Your task to perform on an android device: open app "Walmart Shopping & Grocery" (install if not already installed) and enter user name: "Hans@icloud.com" and password: "executing" Image 0: 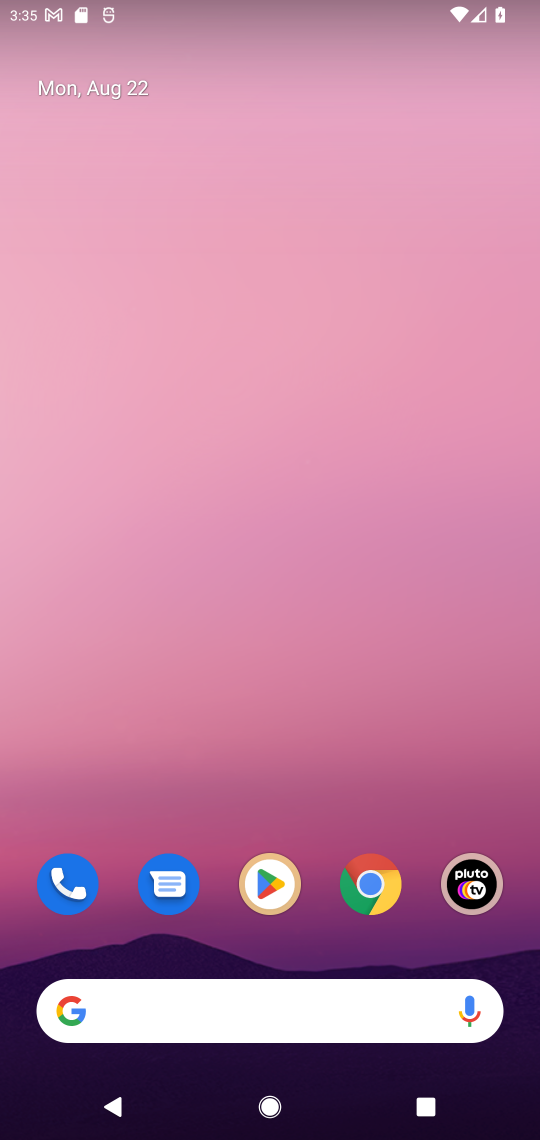
Step 0: click (265, 891)
Your task to perform on an android device: open app "Walmart Shopping & Grocery" (install if not already installed) and enter user name: "Hans@icloud.com" and password: "executing" Image 1: 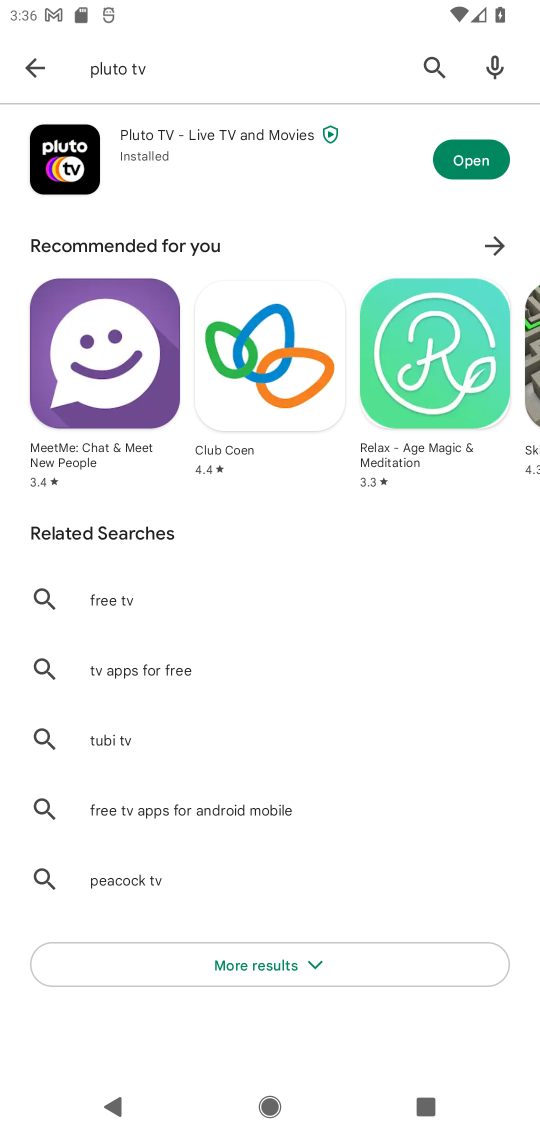
Step 1: click (205, 77)
Your task to perform on an android device: open app "Walmart Shopping & Grocery" (install if not already installed) and enter user name: "Hans@icloud.com" and password: "executing" Image 2: 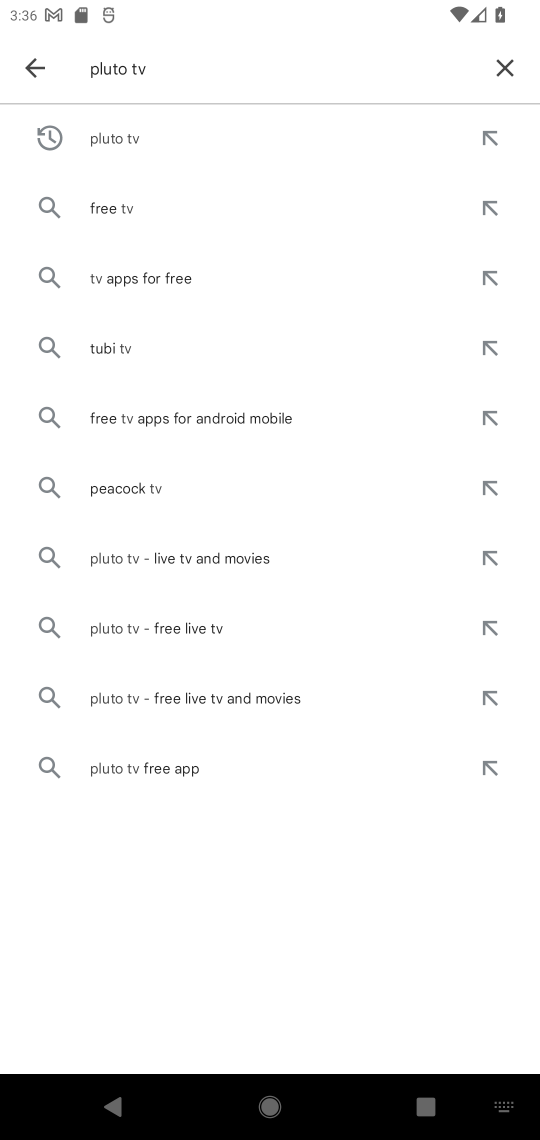
Step 2: click (499, 71)
Your task to perform on an android device: open app "Walmart Shopping & Grocery" (install if not already installed) and enter user name: "Hans@icloud.com" and password: "executing" Image 3: 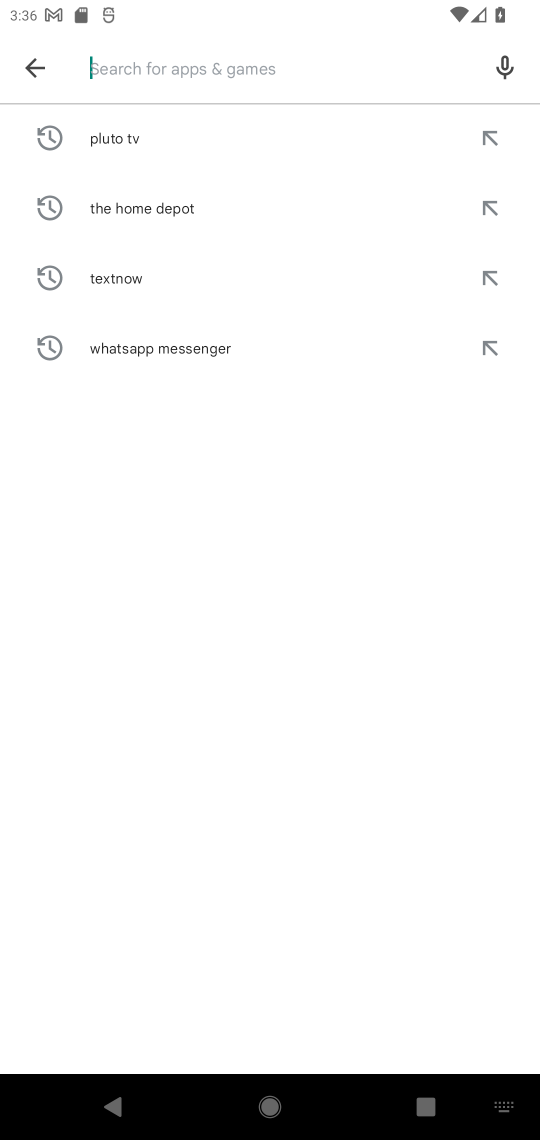
Step 3: type "Walmart"
Your task to perform on an android device: open app "Walmart Shopping & Grocery" (install if not already installed) and enter user name: "Hans@icloud.com" and password: "executing" Image 4: 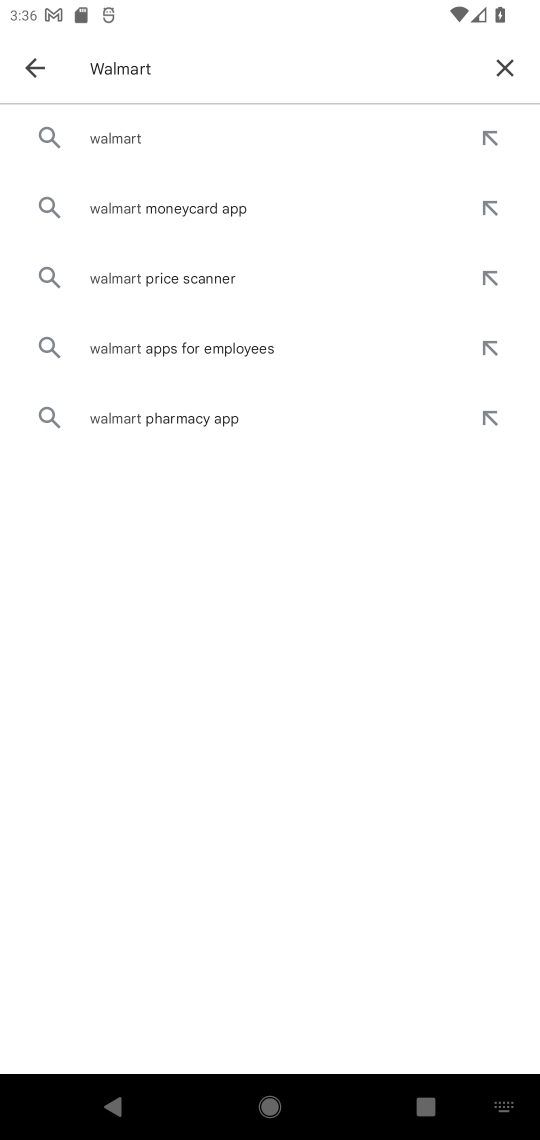
Step 4: click (144, 136)
Your task to perform on an android device: open app "Walmart Shopping & Grocery" (install if not already installed) and enter user name: "Hans@icloud.com" and password: "executing" Image 5: 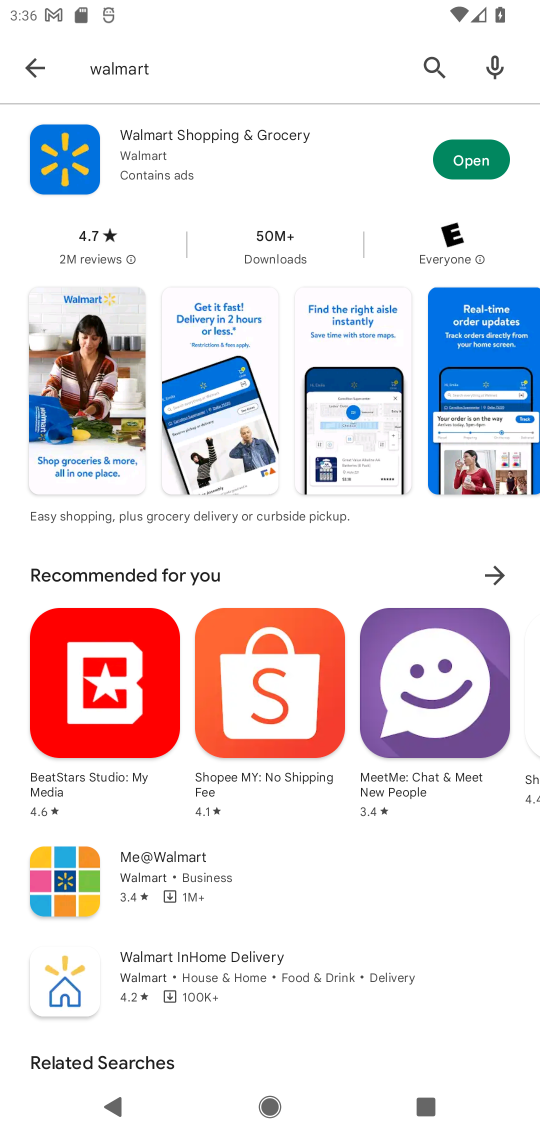
Step 5: click (490, 161)
Your task to perform on an android device: open app "Walmart Shopping & Grocery" (install if not already installed) and enter user name: "Hans@icloud.com" and password: "executing" Image 6: 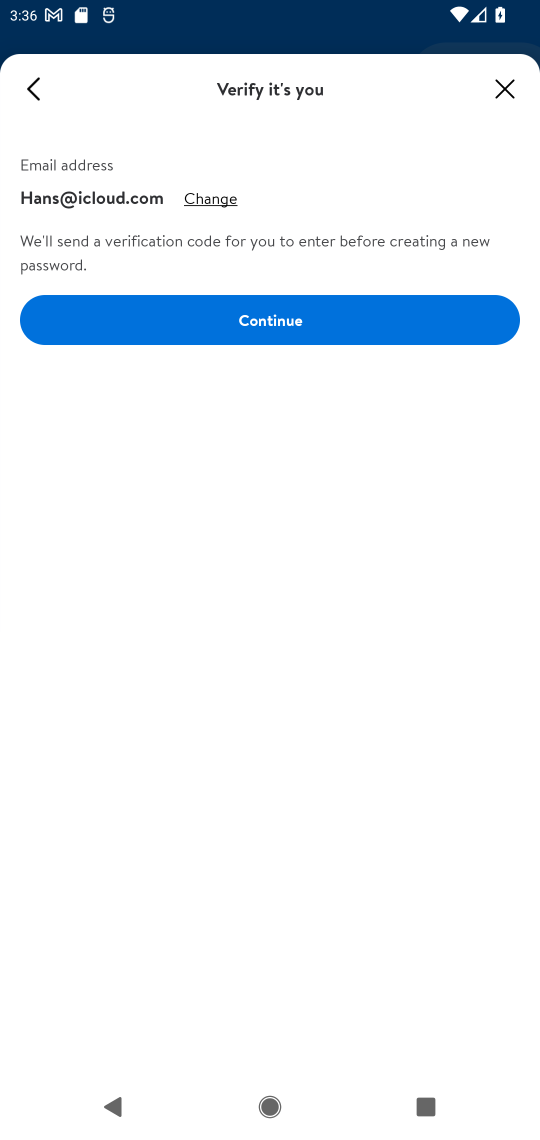
Step 6: click (328, 328)
Your task to perform on an android device: open app "Walmart Shopping & Grocery" (install if not already installed) and enter user name: "Hans@icloud.com" and password: "executing" Image 7: 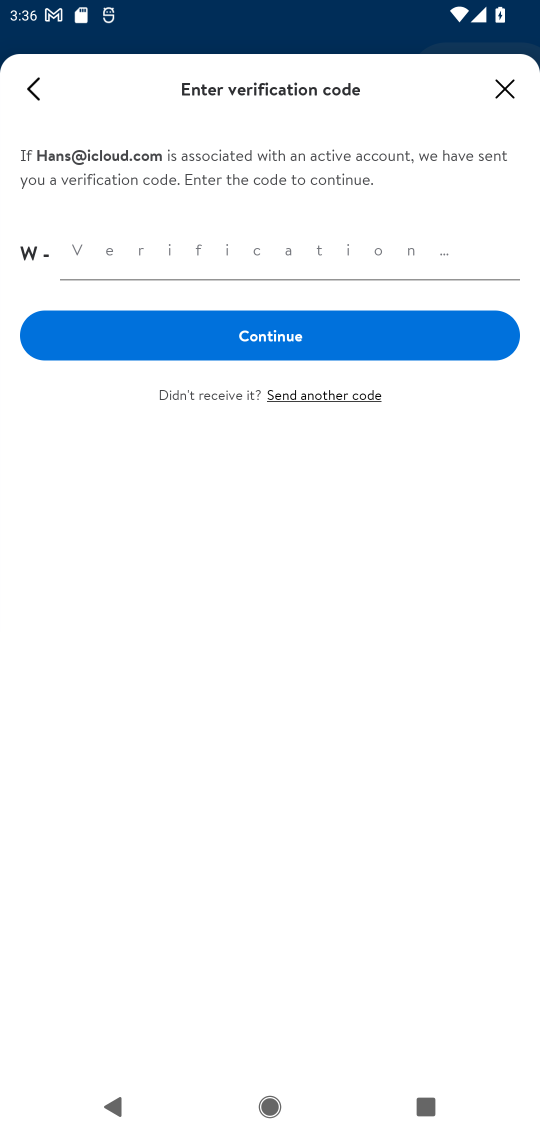
Step 7: click (204, 249)
Your task to perform on an android device: open app "Walmart Shopping & Grocery" (install if not already installed) and enter user name: "Hans@icloud.com" and password: "executing" Image 8: 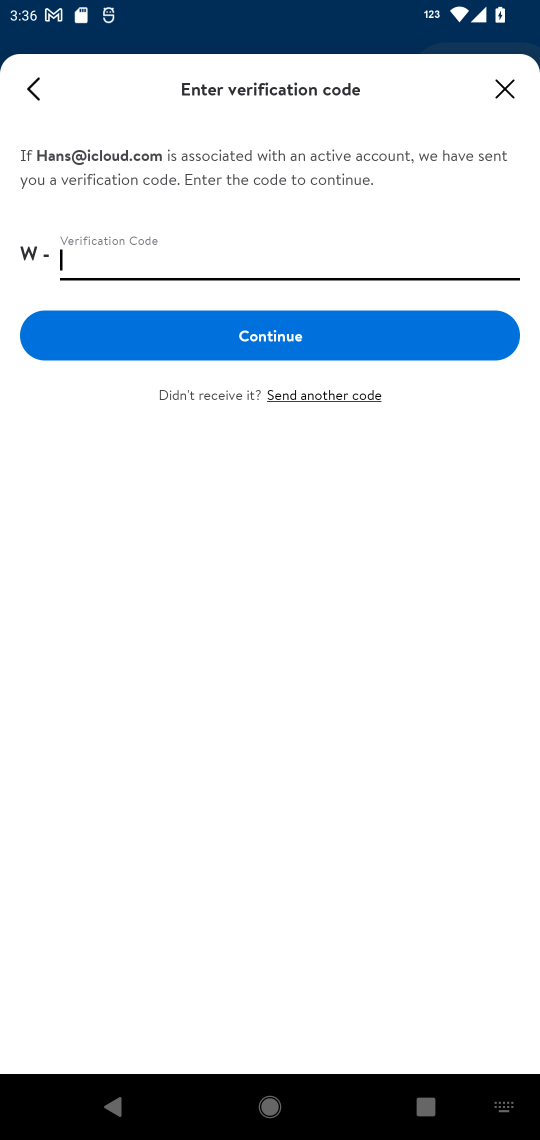
Step 8: task complete